Your task to perform on an android device: turn off airplane mode Image 0: 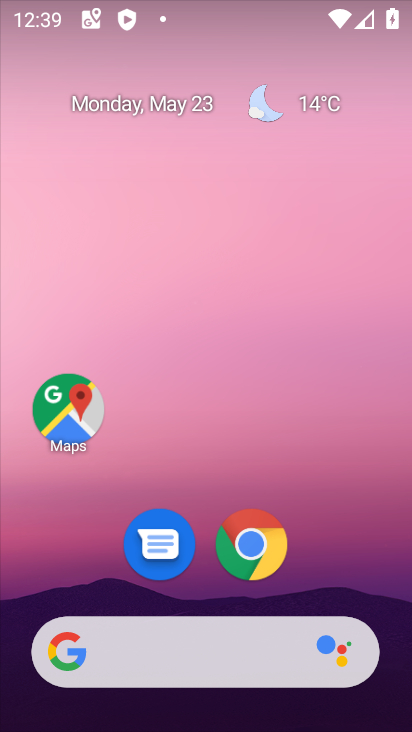
Step 0: drag from (276, 12) to (282, 550)
Your task to perform on an android device: turn off airplane mode Image 1: 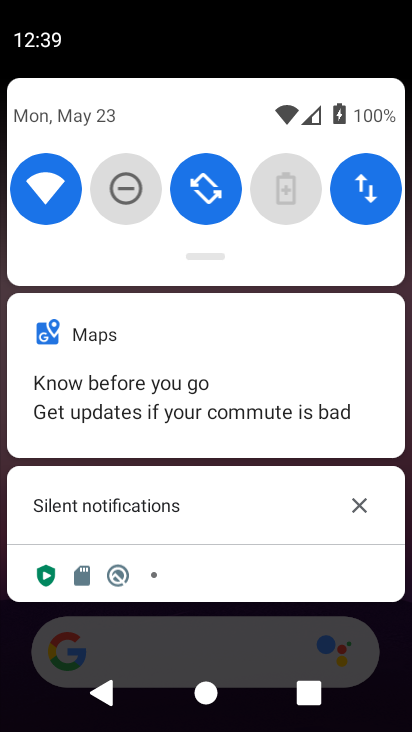
Step 1: task complete